Your task to perform on an android device: Open maps Image 0: 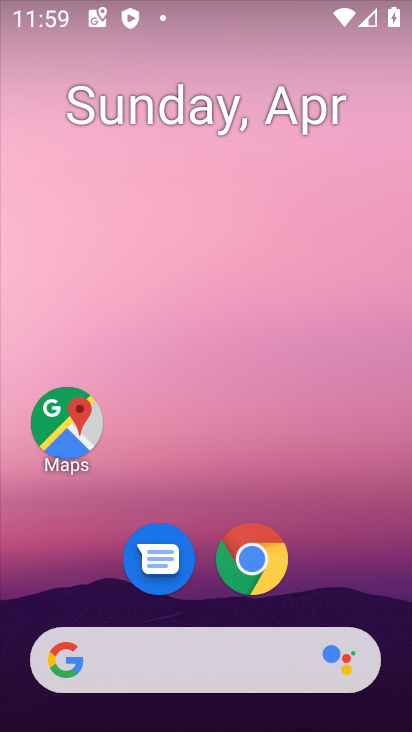
Step 0: click (76, 415)
Your task to perform on an android device: Open maps Image 1: 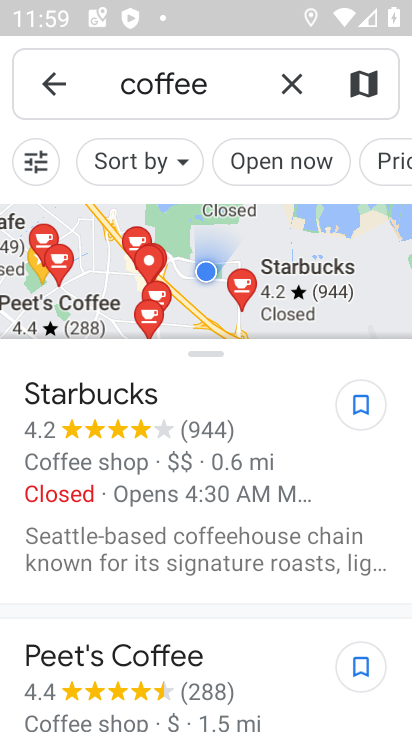
Step 1: task complete